Your task to perform on an android device: Open settings on Google Maps Image 0: 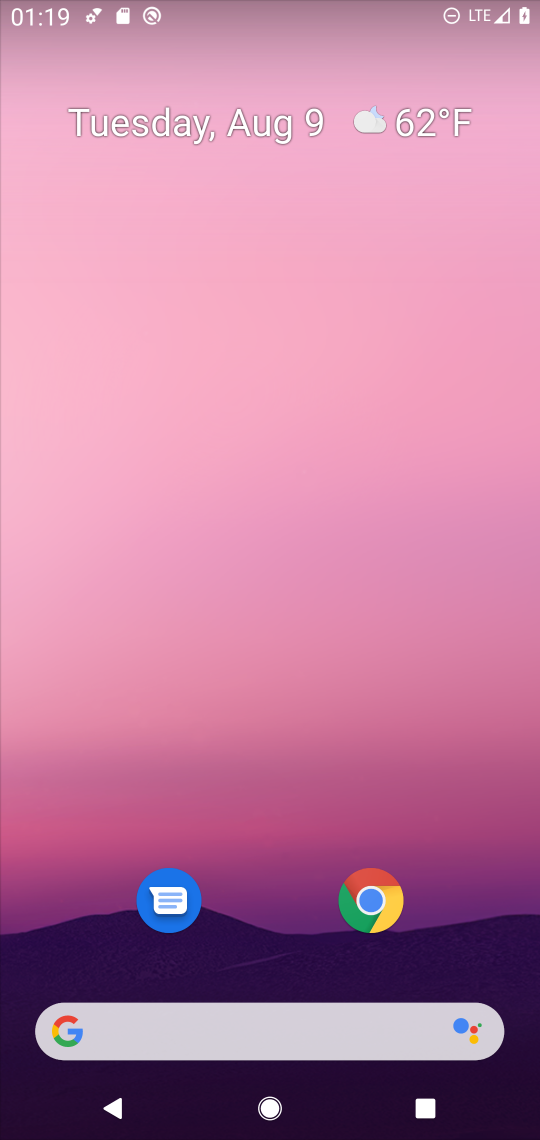
Step 0: press home button
Your task to perform on an android device: Open settings on Google Maps Image 1: 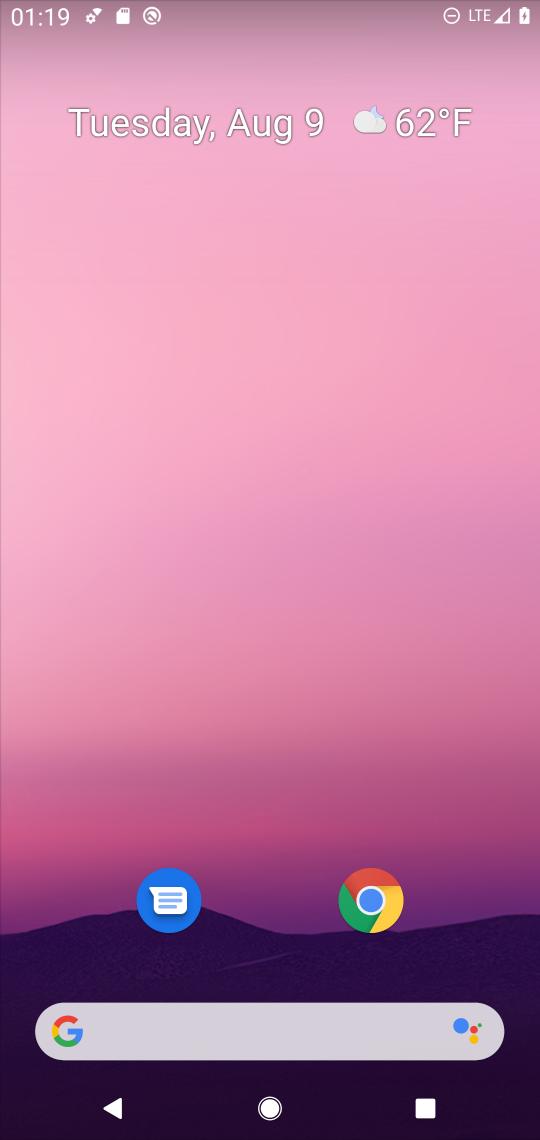
Step 1: drag from (253, 924) to (345, 159)
Your task to perform on an android device: Open settings on Google Maps Image 2: 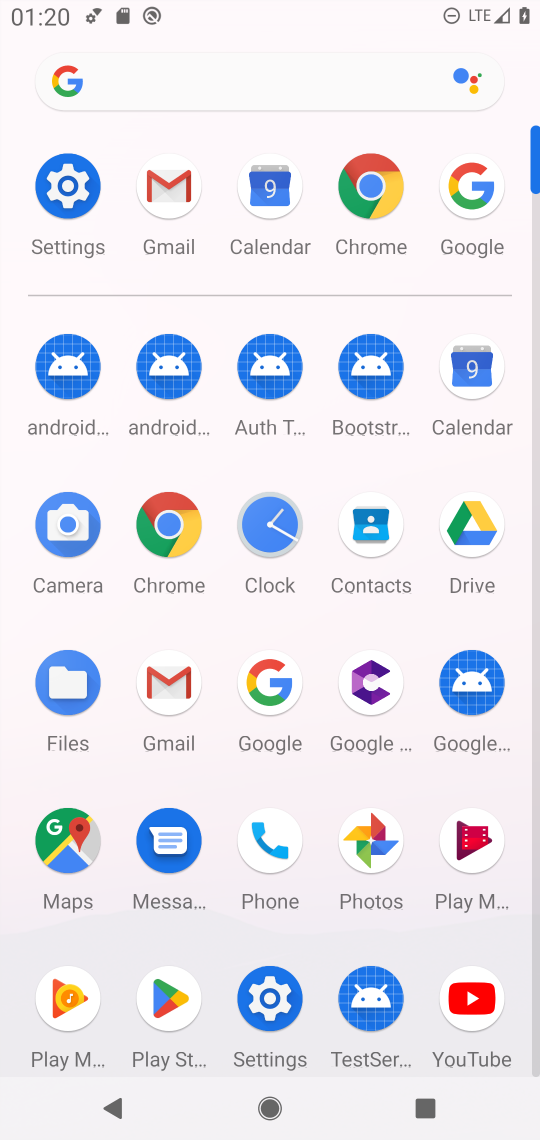
Step 2: click (66, 844)
Your task to perform on an android device: Open settings on Google Maps Image 3: 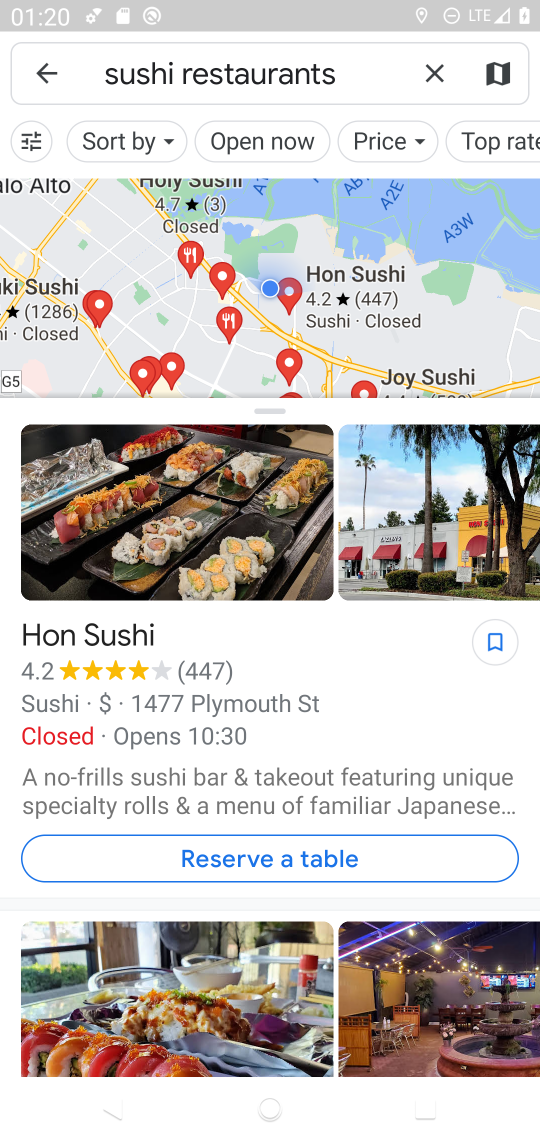
Step 3: task complete